Your task to perform on an android device: turn off location Image 0: 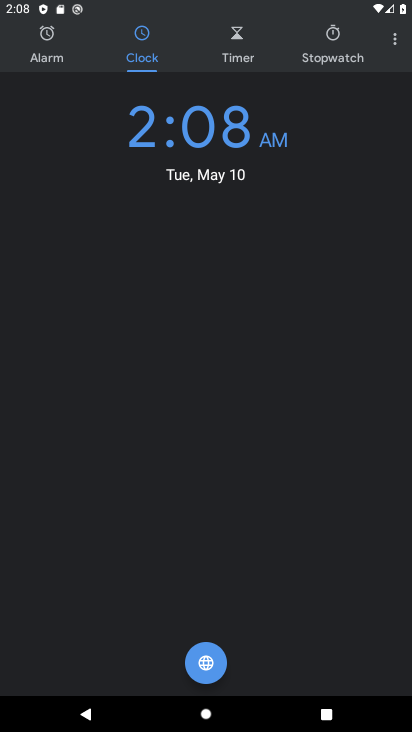
Step 0: press home button
Your task to perform on an android device: turn off location Image 1: 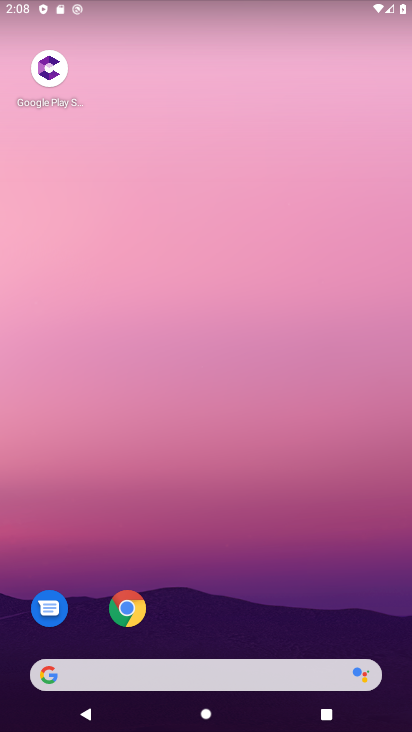
Step 1: drag from (385, 647) to (323, 189)
Your task to perform on an android device: turn off location Image 2: 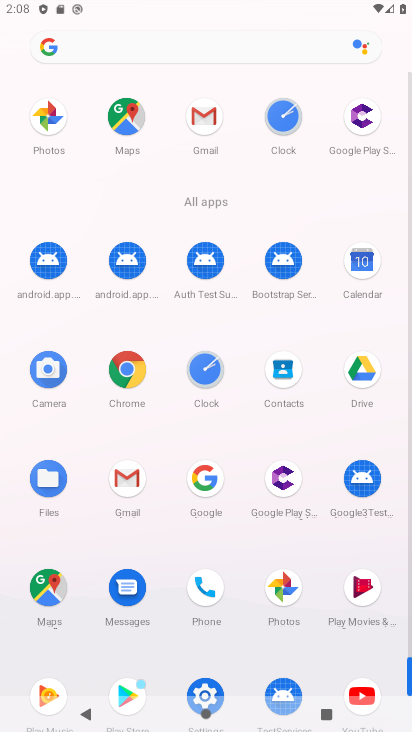
Step 2: click (411, 645)
Your task to perform on an android device: turn off location Image 3: 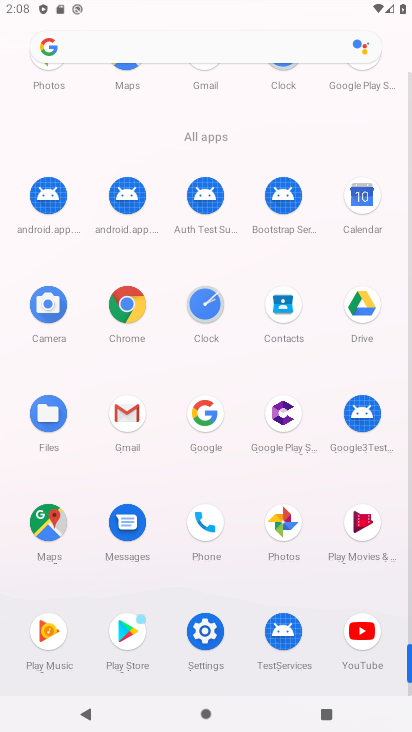
Step 3: click (205, 630)
Your task to perform on an android device: turn off location Image 4: 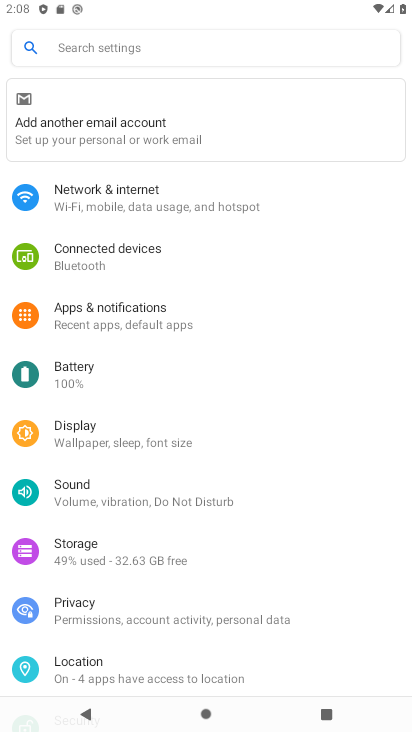
Step 4: drag from (295, 607) to (269, 277)
Your task to perform on an android device: turn off location Image 5: 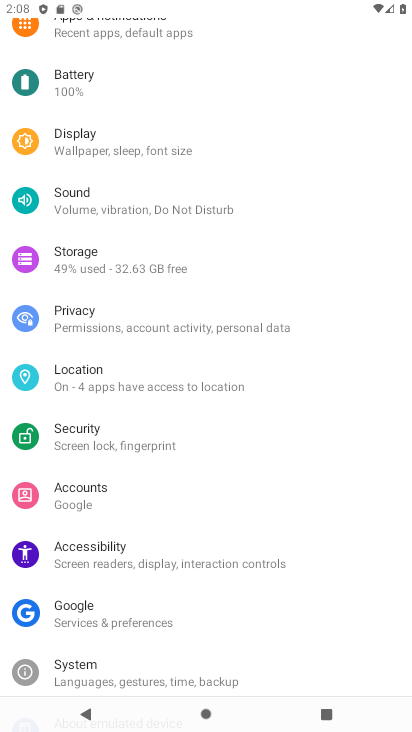
Step 5: click (64, 375)
Your task to perform on an android device: turn off location Image 6: 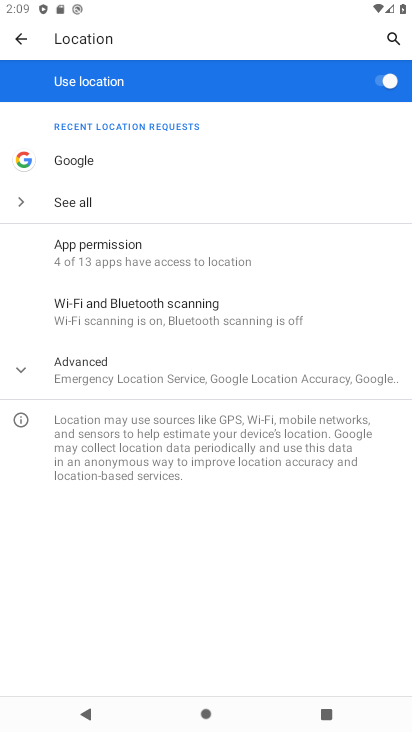
Step 6: click (374, 77)
Your task to perform on an android device: turn off location Image 7: 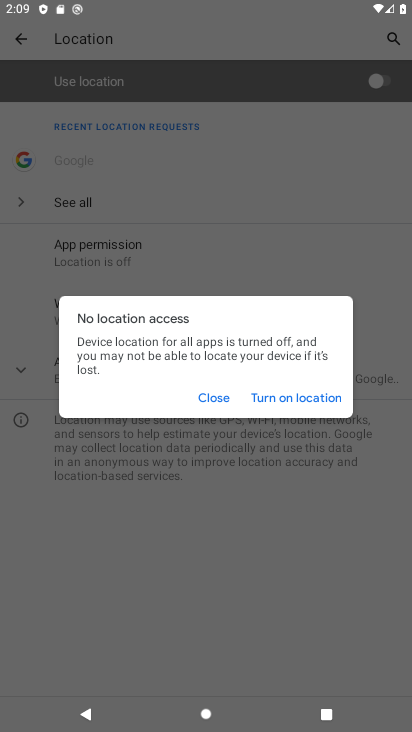
Step 7: task complete